Your task to perform on an android device: Open maps Image 0: 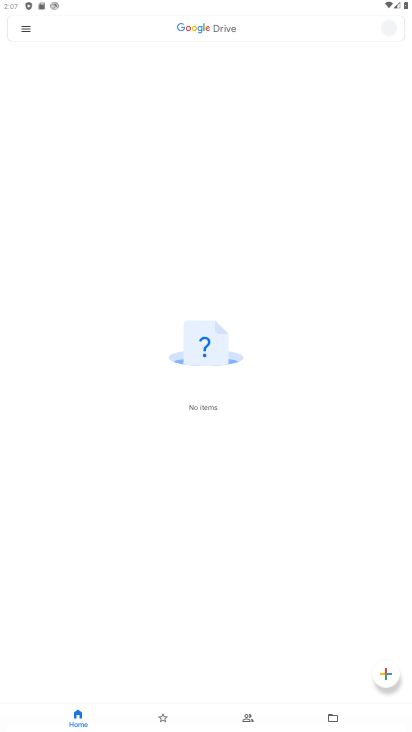
Step 0: click (156, 666)
Your task to perform on an android device: Open maps Image 1: 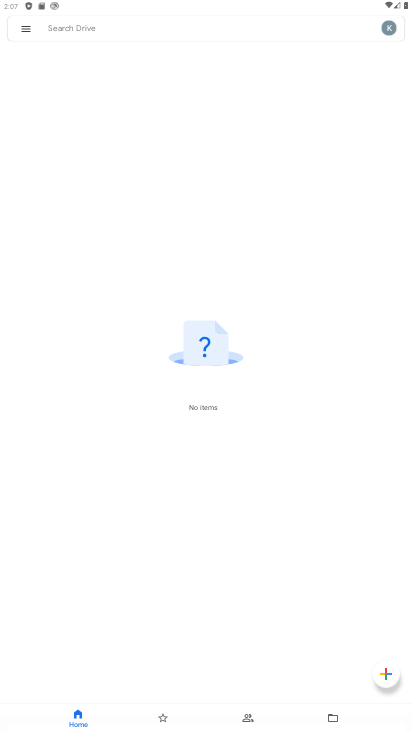
Step 1: press home button
Your task to perform on an android device: Open maps Image 2: 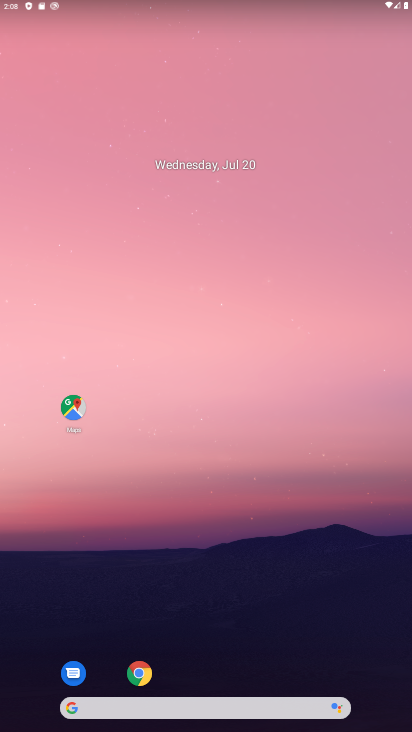
Step 2: click (73, 390)
Your task to perform on an android device: Open maps Image 3: 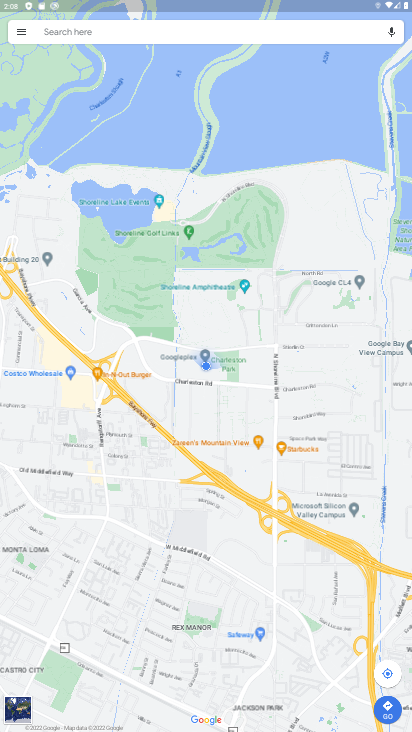
Step 3: task complete